Your task to perform on an android device: check storage Image 0: 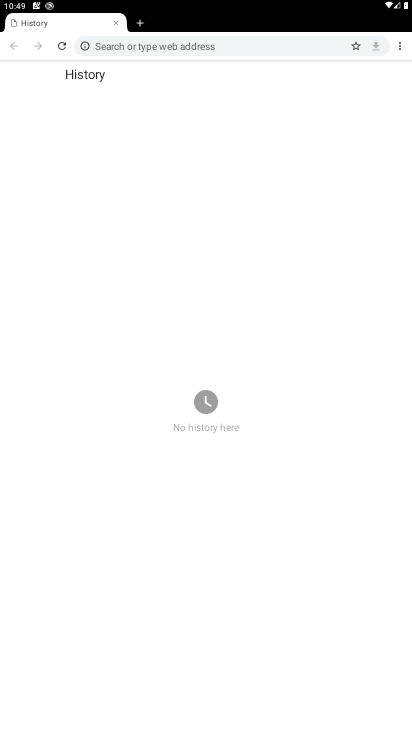
Step 0: press home button
Your task to perform on an android device: check storage Image 1: 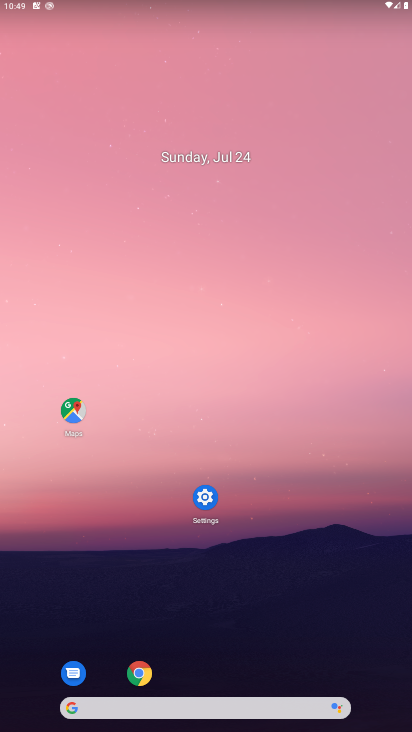
Step 1: click (195, 492)
Your task to perform on an android device: check storage Image 2: 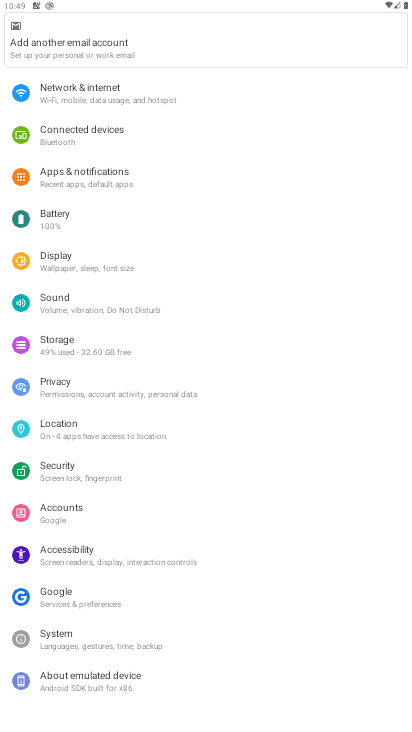
Step 2: click (67, 349)
Your task to perform on an android device: check storage Image 3: 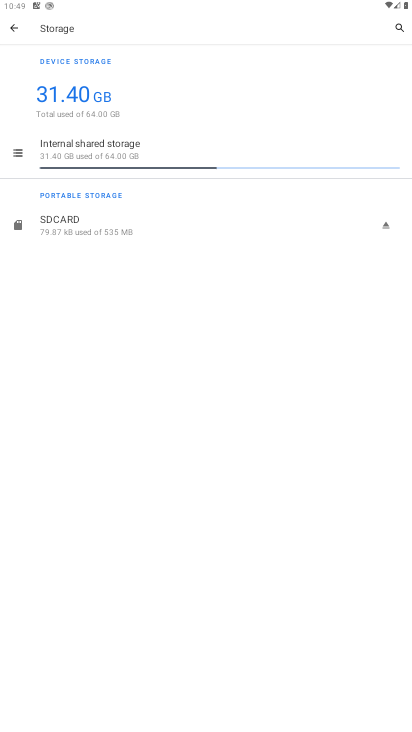
Step 3: task complete